Your task to perform on an android device: Go to Amazon Image 0: 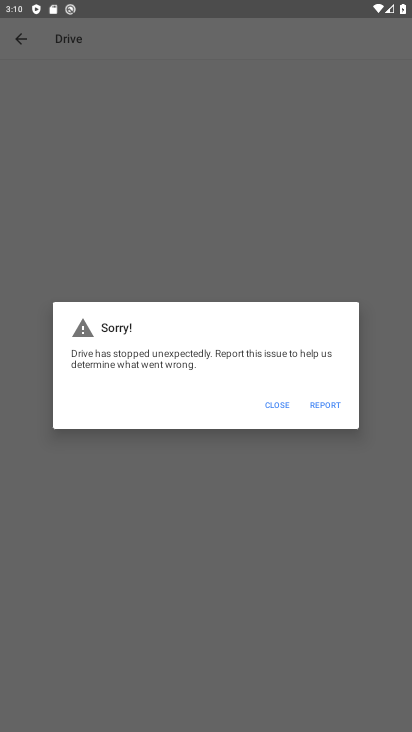
Step 0: press home button
Your task to perform on an android device: Go to Amazon Image 1: 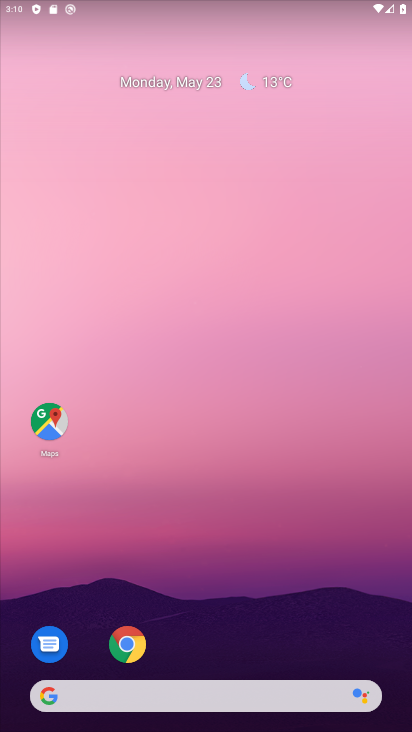
Step 1: click (125, 643)
Your task to perform on an android device: Go to Amazon Image 2: 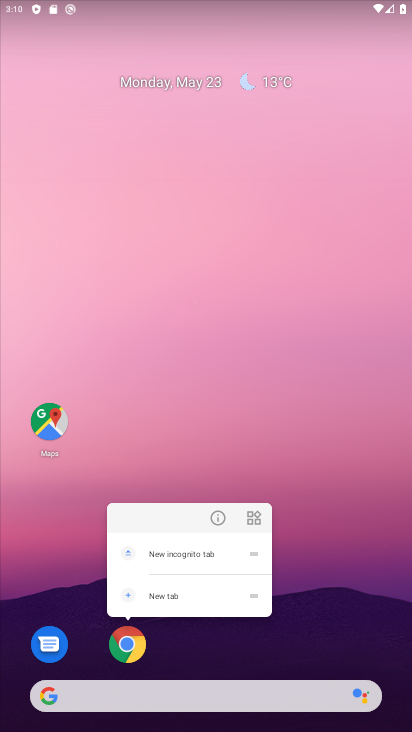
Step 2: click (126, 645)
Your task to perform on an android device: Go to Amazon Image 3: 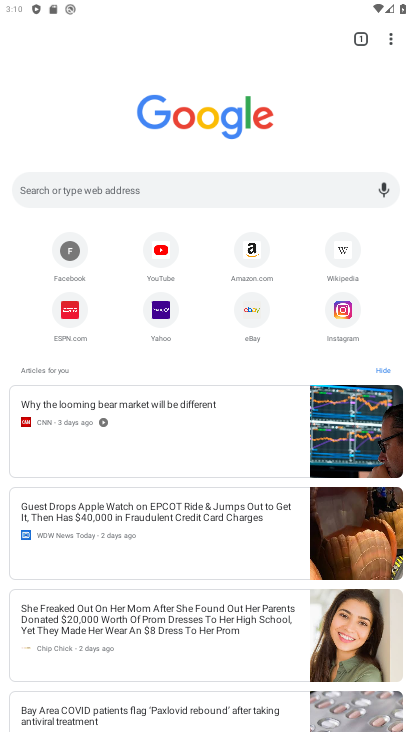
Step 3: click (254, 255)
Your task to perform on an android device: Go to Amazon Image 4: 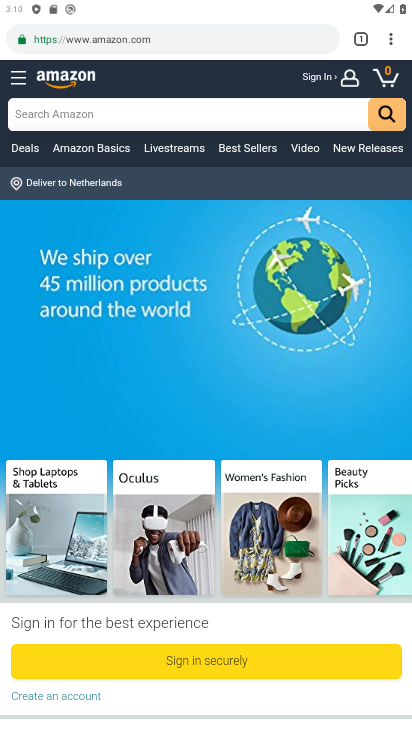
Step 4: task complete